Your task to perform on an android device: turn off notifications in google photos Image 0: 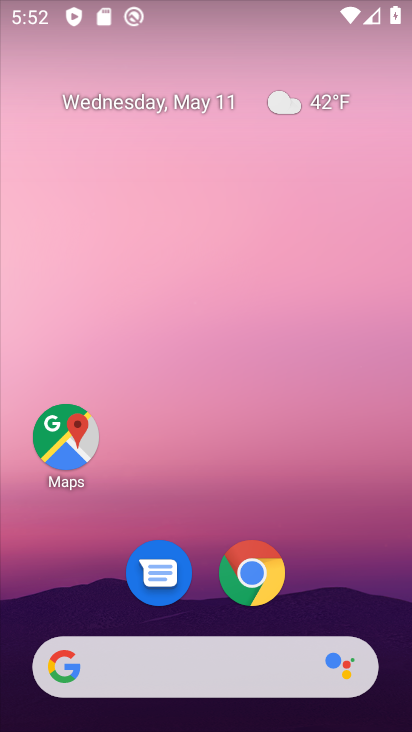
Step 0: drag from (341, 597) to (263, 182)
Your task to perform on an android device: turn off notifications in google photos Image 1: 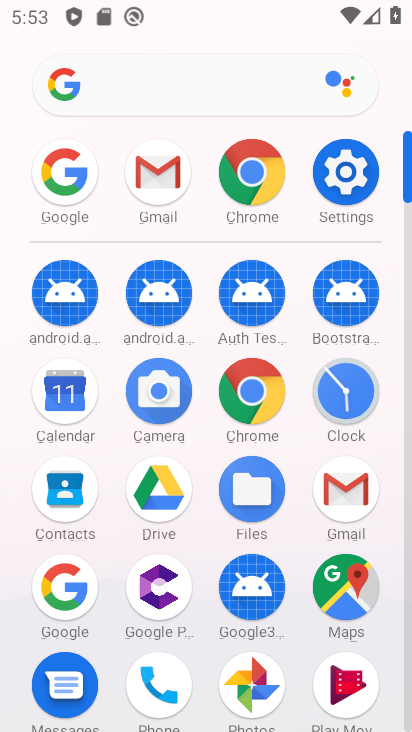
Step 1: drag from (233, 638) to (257, 403)
Your task to perform on an android device: turn off notifications in google photos Image 2: 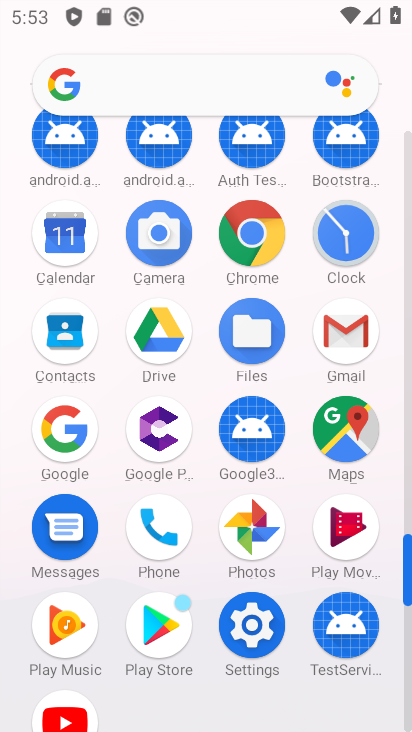
Step 2: click (266, 552)
Your task to perform on an android device: turn off notifications in google photos Image 3: 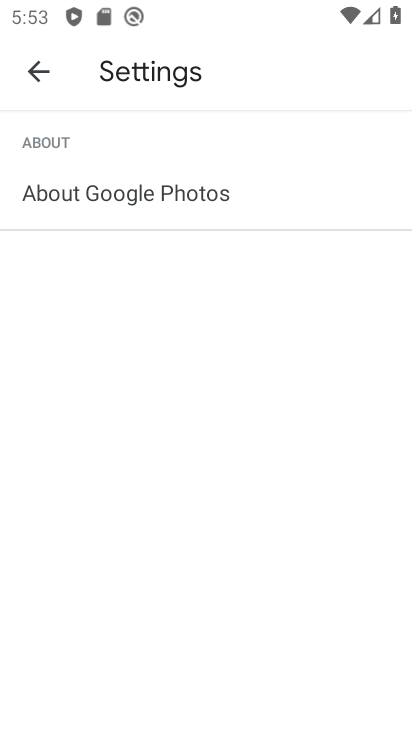
Step 3: click (38, 89)
Your task to perform on an android device: turn off notifications in google photos Image 4: 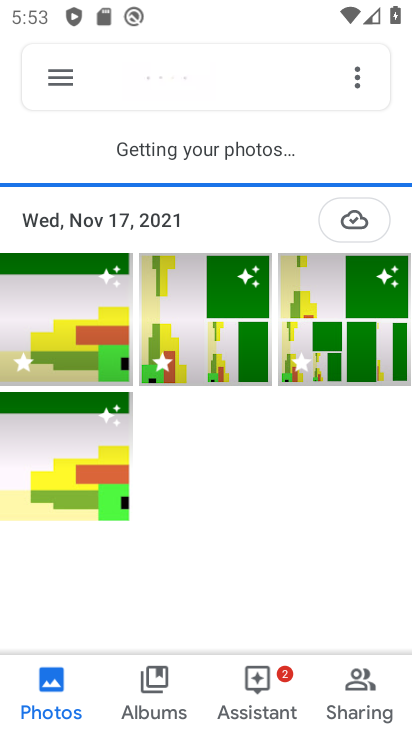
Step 4: click (61, 82)
Your task to perform on an android device: turn off notifications in google photos Image 5: 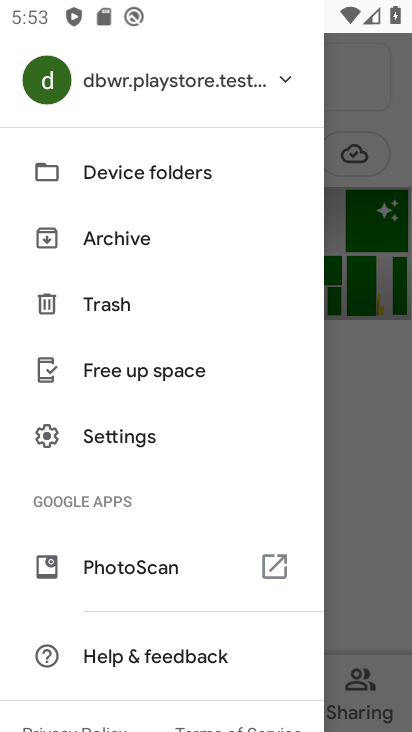
Step 5: click (95, 448)
Your task to perform on an android device: turn off notifications in google photos Image 6: 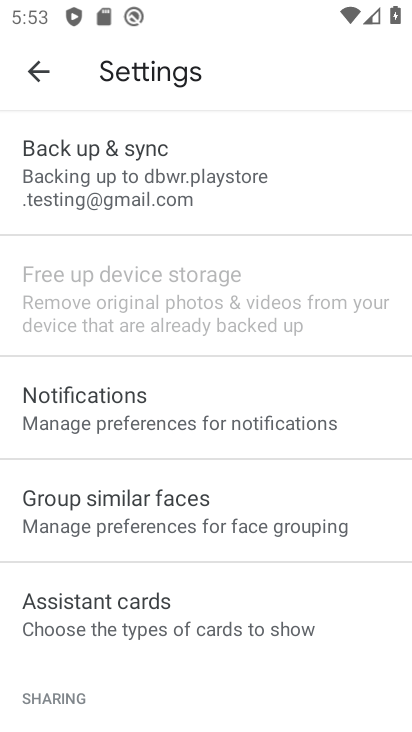
Step 6: click (142, 404)
Your task to perform on an android device: turn off notifications in google photos Image 7: 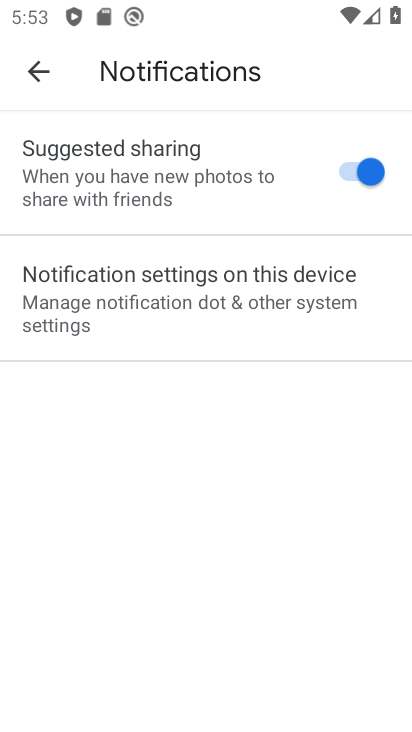
Step 7: click (337, 178)
Your task to perform on an android device: turn off notifications in google photos Image 8: 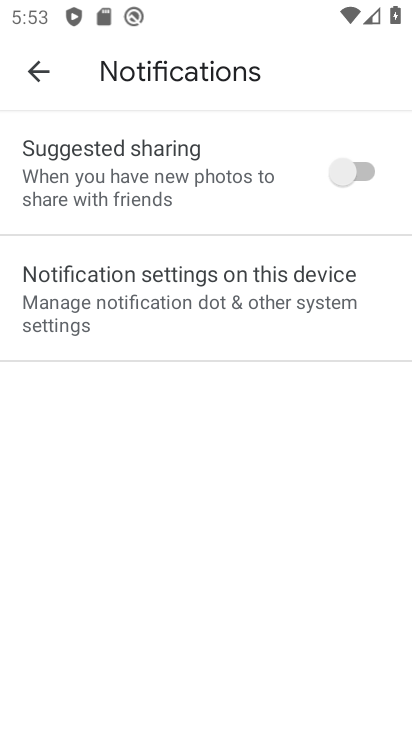
Step 8: task complete